Your task to perform on an android device: Go to Yahoo.com Image 0: 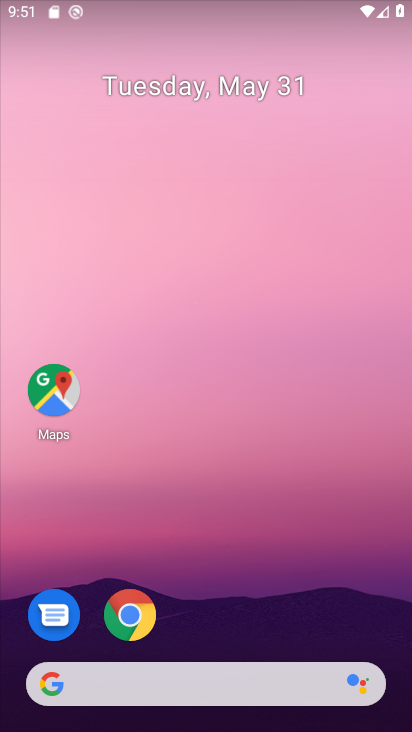
Step 0: click (121, 619)
Your task to perform on an android device: Go to Yahoo.com Image 1: 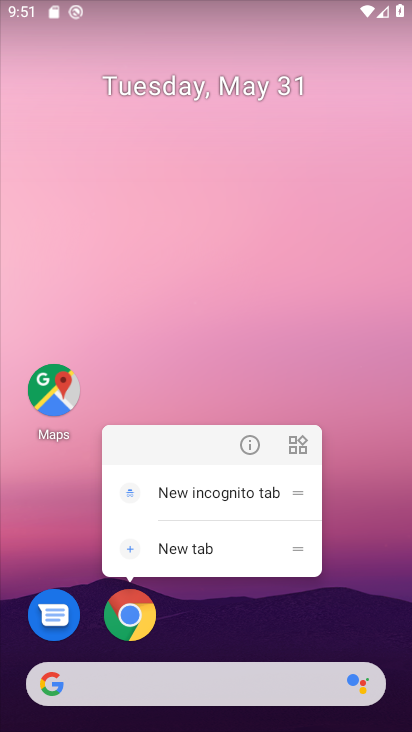
Step 1: click (134, 606)
Your task to perform on an android device: Go to Yahoo.com Image 2: 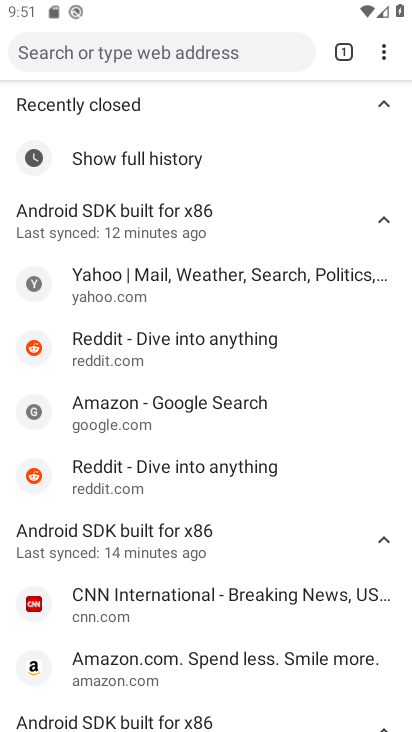
Step 2: click (142, 51)
Your task to perform on an android device: Go to Yahoo.com Image 3: 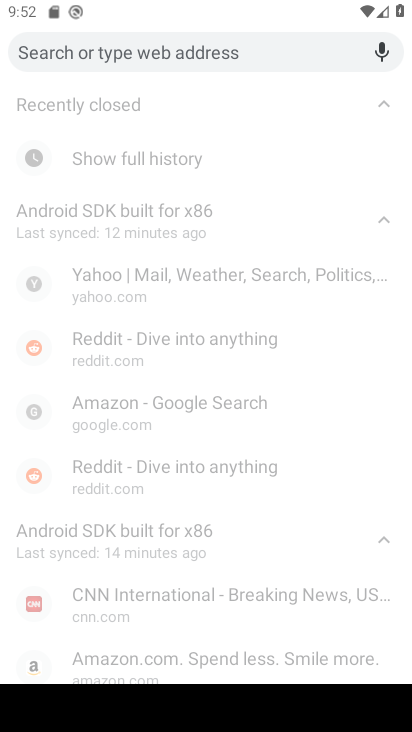
Step 3: type "yahoo.com"
Your task to perform on an android device: Go to Yahoo.com Image 4: 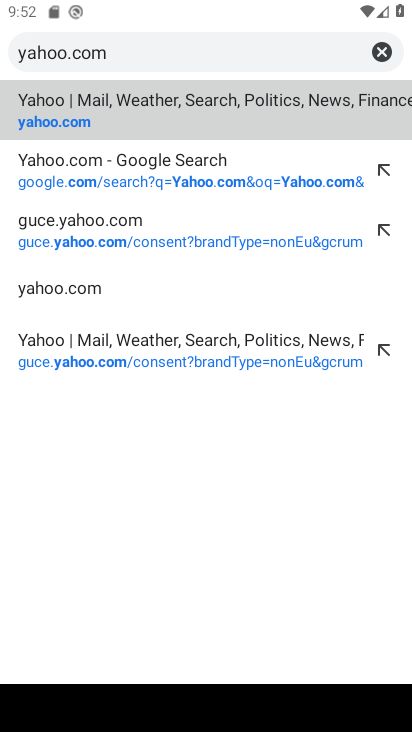
Step 4: click (87, 120)
Your task to perform on an android device: Go to Yahoo.com Image 5: 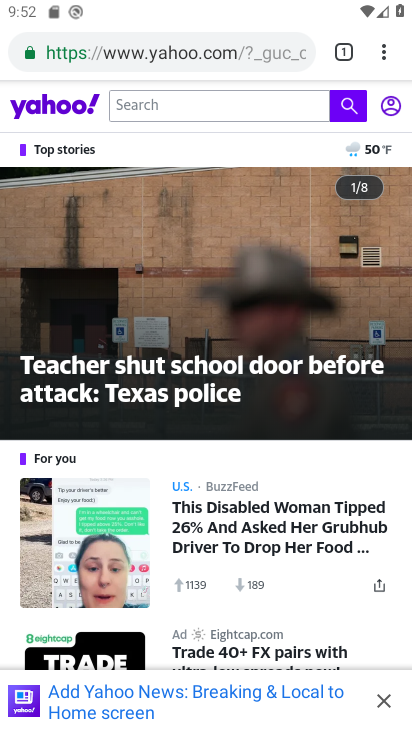
Step 5: task complete